Your task to perform on an android device: find snoozed emails in the gmail app Image 0: 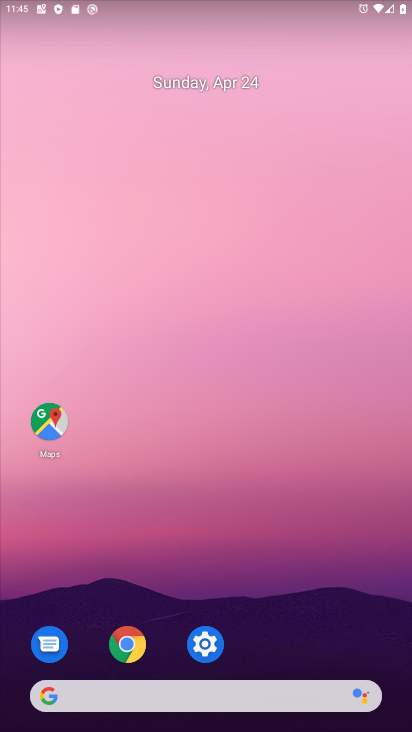
Step 0: drag from (274, 705) to (43, 122)
Your task to perform on an android device: find snoozed emails in the gmail app Image 1: 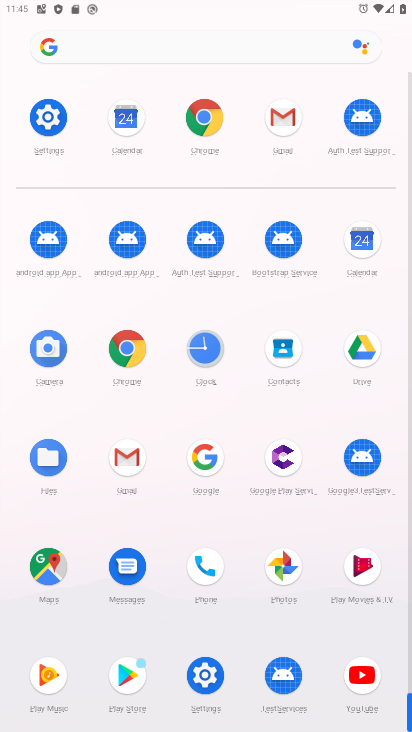
Step 1: click (117, 472)
Your task to perform on an android device: find snoozed emails in the gmail app Image 2: 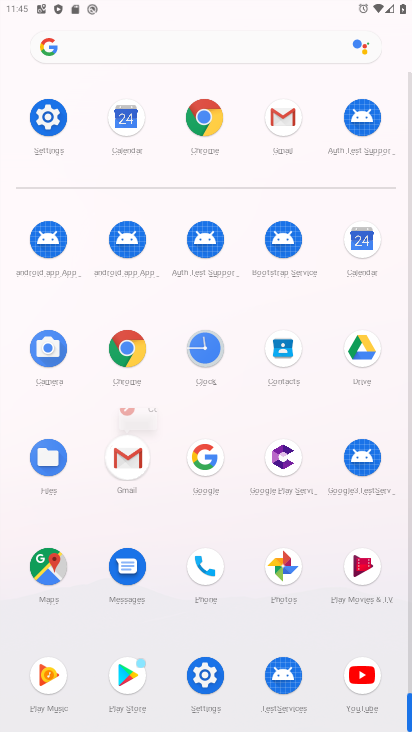
Step 2: click (118, 465)
Your task to perform on an android device: find snoozed emails in the gmail app Image 3: 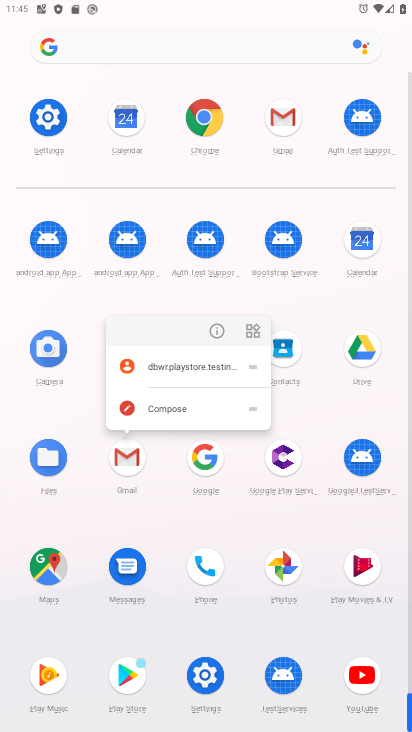
Step 3: click (115, 446)
Your task to perform on an android device: find snoozed emails in the gmail app Image 4: 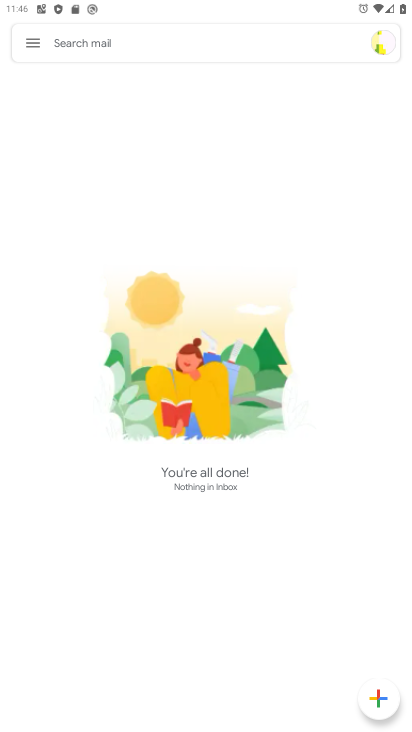
Step 4: click (28, 44)
Your task to perform on an android device: find snoozed emails in the gmail app Image 5: 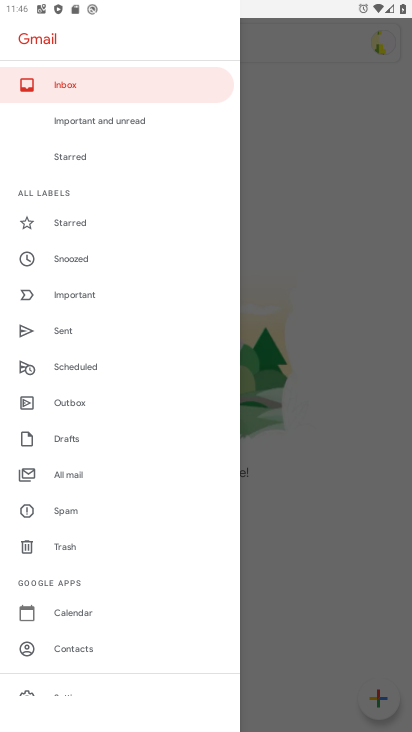
Step 5: click (67, 264)
Your task to perform on an android device: find snoozed emails in the gmail app Image 6: 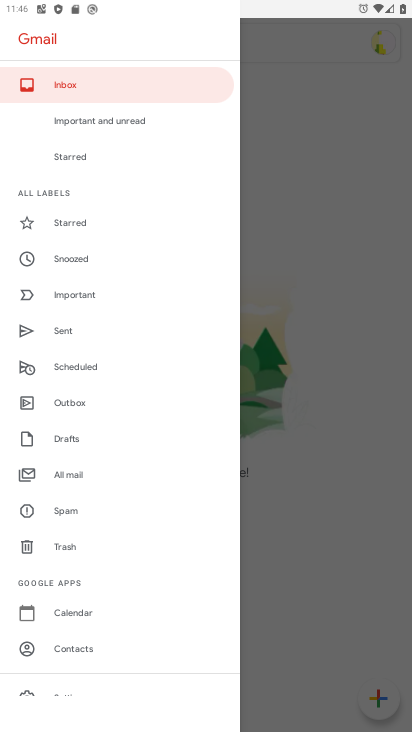
Step 6: click (67, 264)
Your task to perform on an android device: find snoozed emails in the gmail app Image 7: 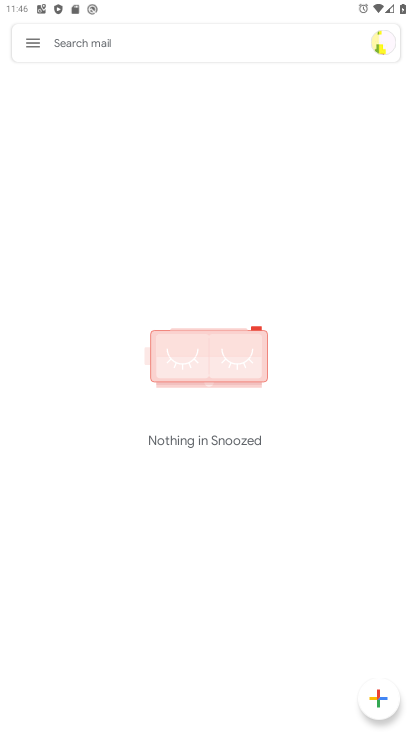
Step 7: task complete